Your task to perform on an android device: change the clock display to digital Image 0: 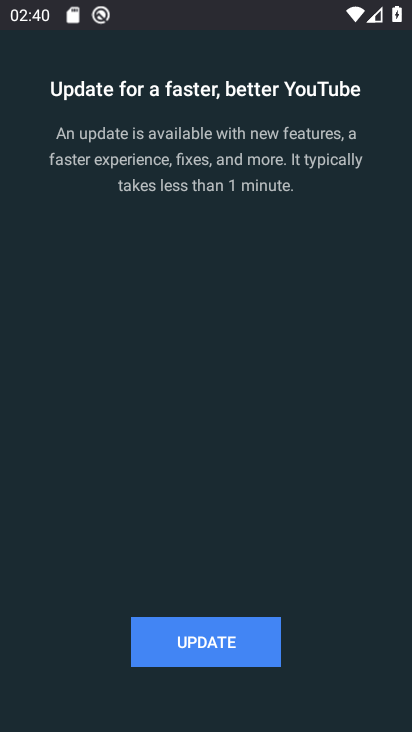
Step 0: press back button
Your task to perform on an android device: change the clock display to digital Image 1: 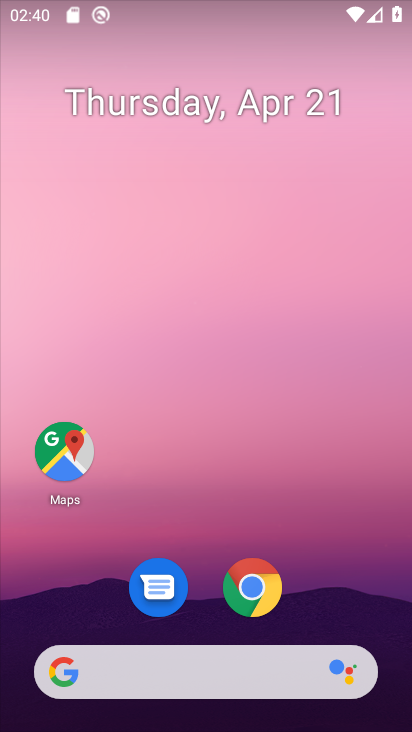
Step 1: drag from (358, 591) to (339, 174)
Your task to perform on an android device: change the clock display to digital Image 2: 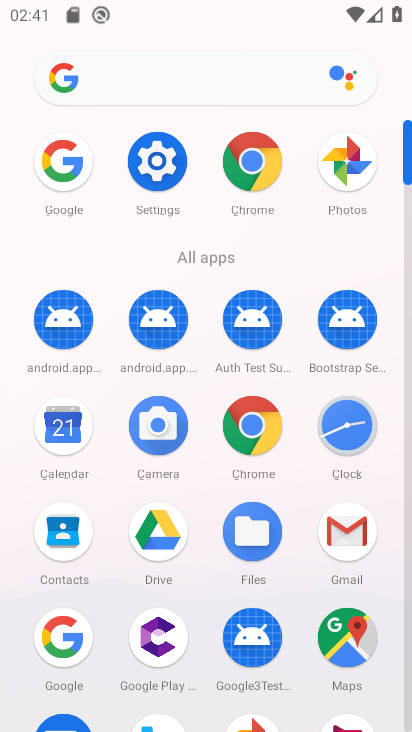
Step 2: click (350, 426)
Your task to perform on an android device: change the clock display to digital Image 3: 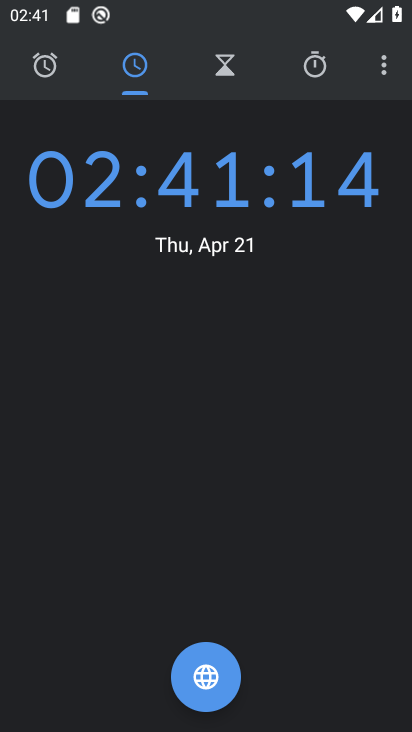
Step 3: click (382, 69)
Your task to perform on an android device: change the clock display to digital Image 4: 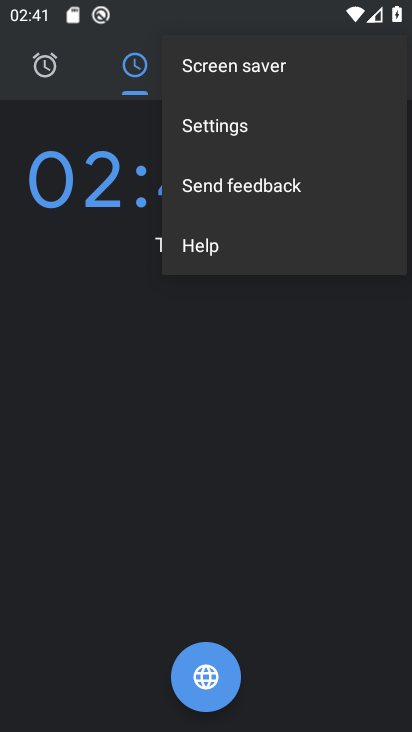
Step 4: click (247, 127)
Your task to perform on an android device: change the clock display to digital Image 5: 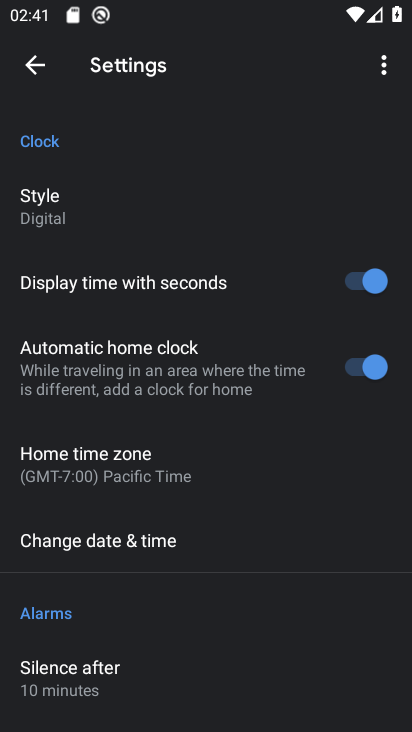
Step 5: task complete